Your task to perform on an android device: What is the recent news? Image 0: 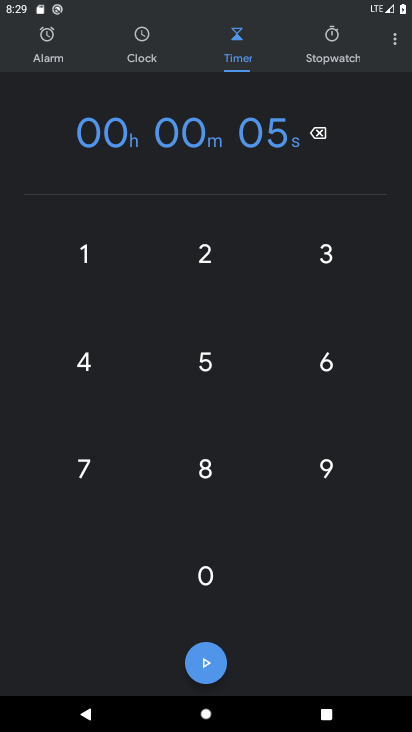
Step 0: press home button
Your task to perform on an android device: What is the recent news? Image 1: 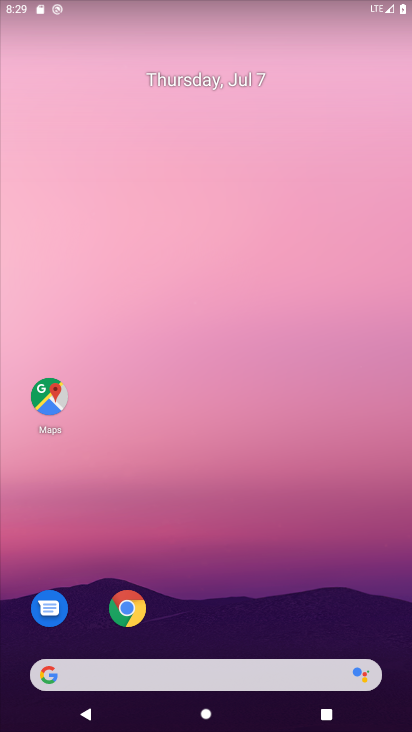
Step 1: task complete